Your task to perform on an android device: Go to Yahoo.com Image 0: 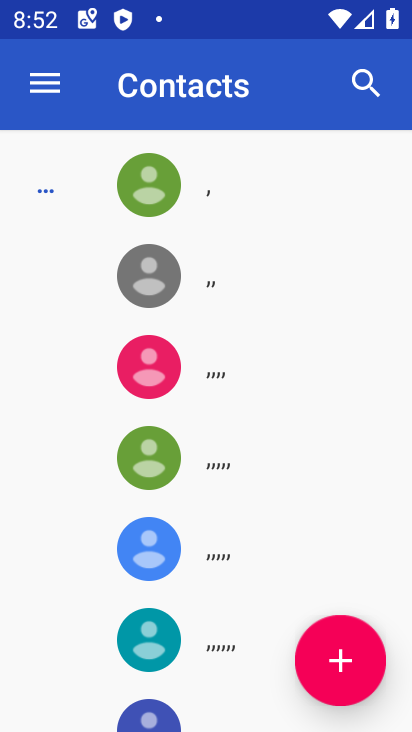
Step 0: press home button
Your task to perform on an android device: Go to Yahoo.com Image 1: 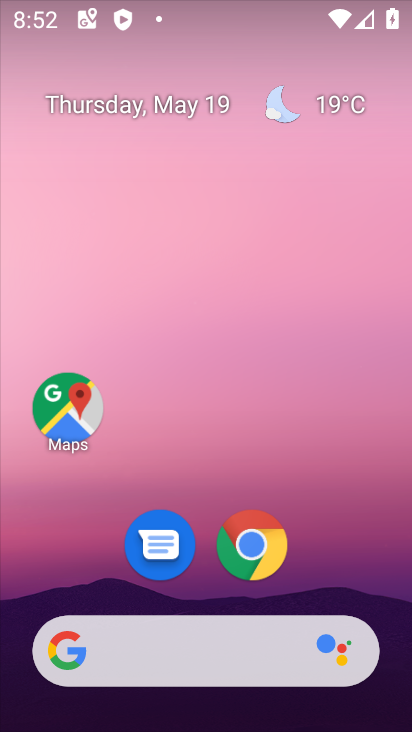
Step 1: click (270, 546)
Your task to perform on an android device: Go to Yahoo.com Image 2: 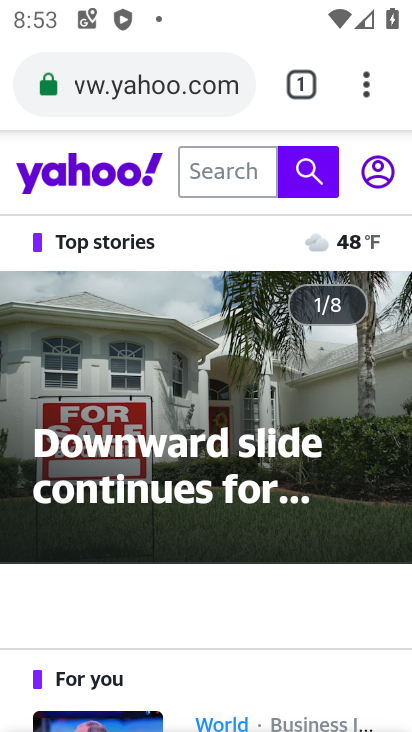
Step 2: click (213, 98)
Your task to perform on an android device: Go to Yahoo.com Image 3: 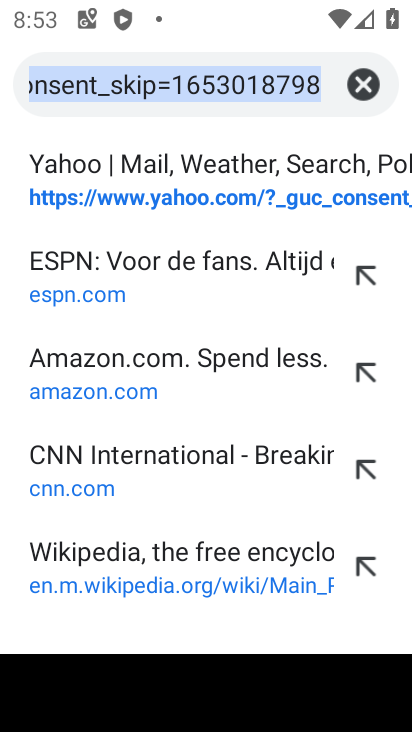
Step 3: task complete